Your task to perform on an android device: Go to Android settings Image 0: 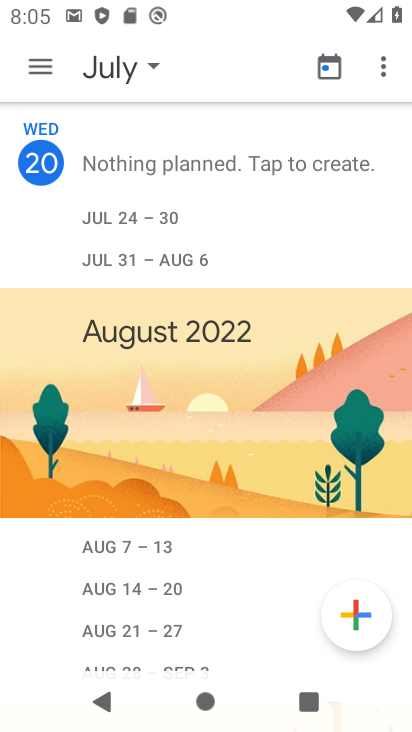
Step 0: press home button
Your task to perform on an android device: Go to Android settings Image 1: 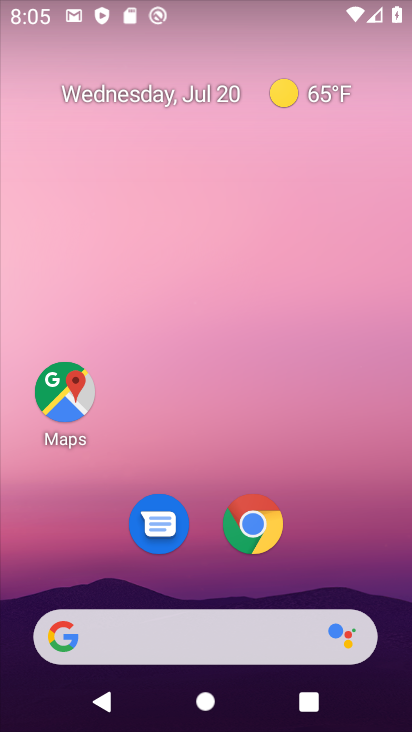
Step 1: drag from (320, 511) to (324, 154)
Your task to perform on an android device: Go to Android settings Image 2: 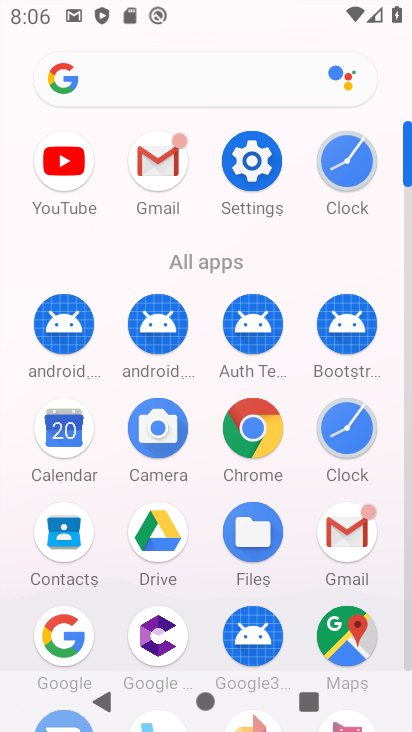
Step 2: click (251, 169)
Your task to perform on an android device: Go to Android settings Image 3: 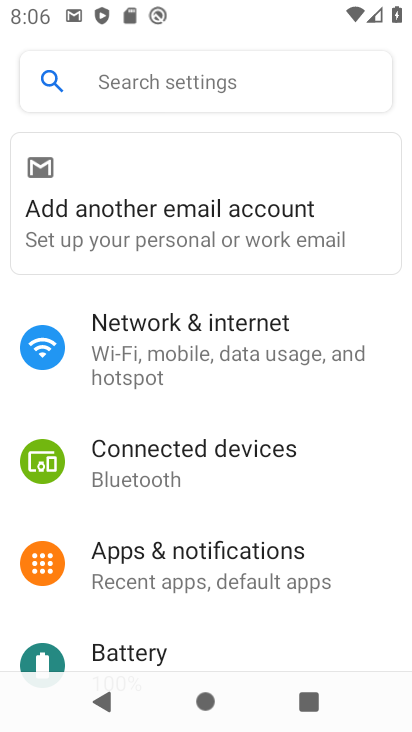
Step 3: drag from (239, 619) to (215, 31)
Your task to perform on an android device: Go to Android settings Image 4: 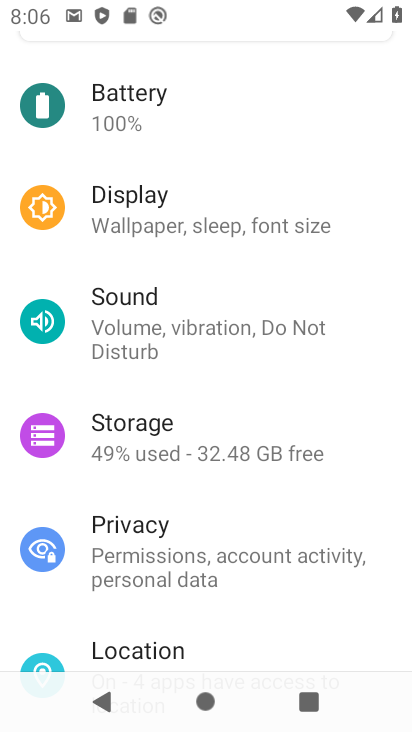
Step 4: drag from (214, 627) to (220, 72)
Your task to perform on an android device: Go to Android settings Image 5: 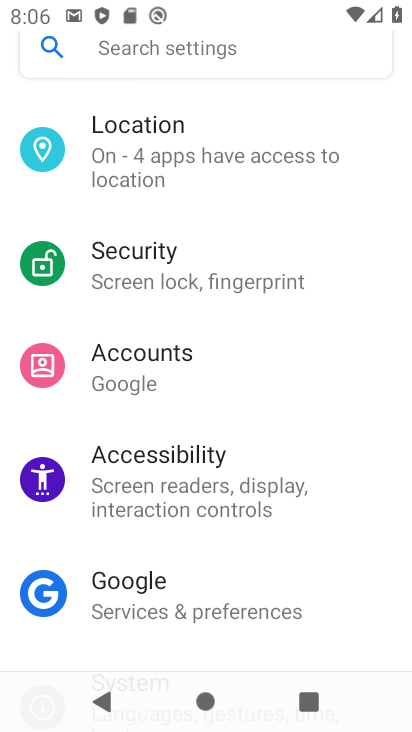
Step 5: drag from (251, 553) to (239, 327)
Your task to perform on an android device: Go to Android settings Image 6: 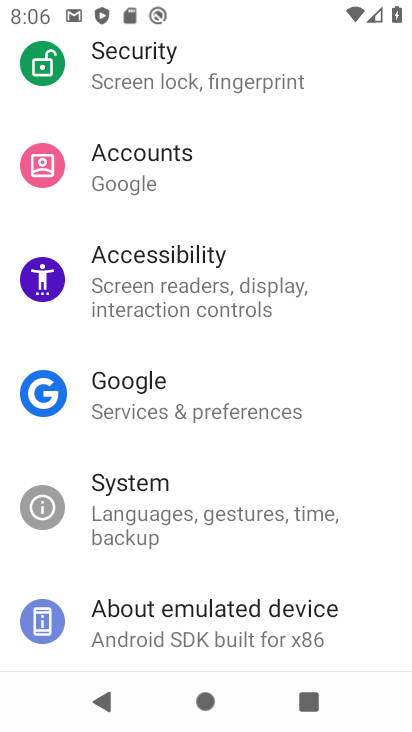
Step 6: click (210, 602)
Your task to perform on an android device: Go to Android settings Image 7: 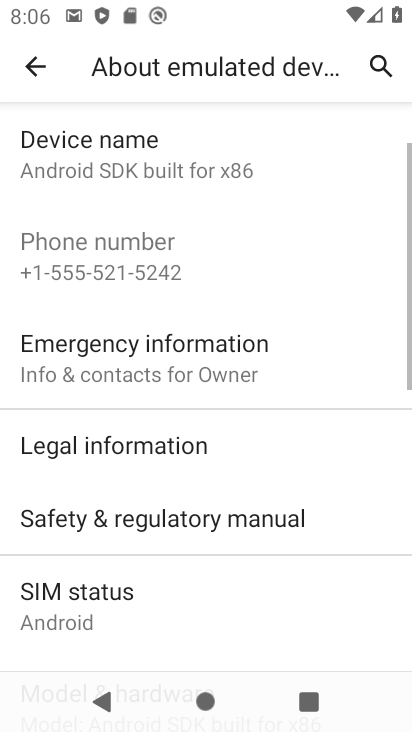
Step 7: task complete